Your task to perform on an android device: turn off picture-in-picture Image 0: 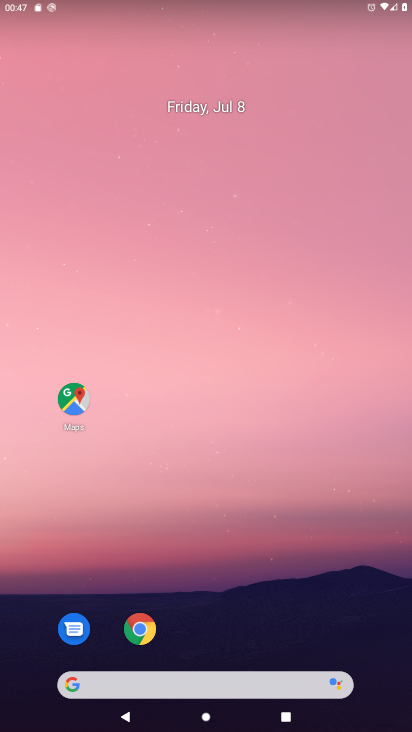
Step 0: click (135, 631)
Your task to perform on an android device: turn off picture-in-picture Image 1: 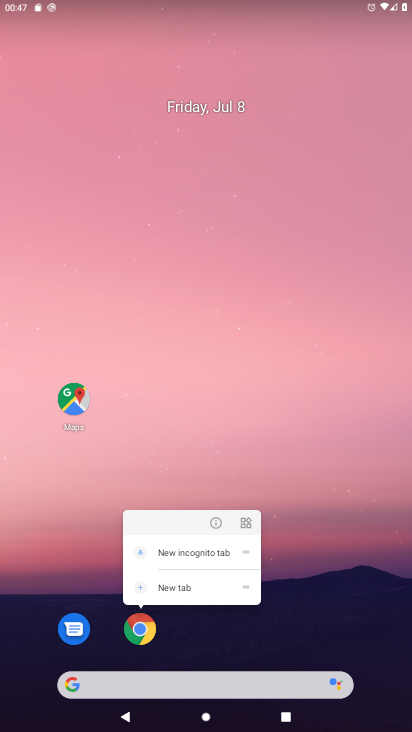
Step 1: click (214, 520)
Your task to perform on an android device: turn off picture-in-picture Image 2: 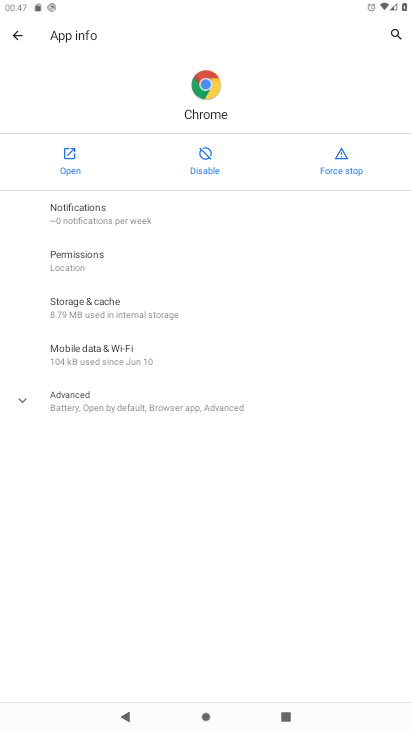
Step 2: click (119, 400)
Your task to perform on an android device: turn off picture-in-picture Image 3: 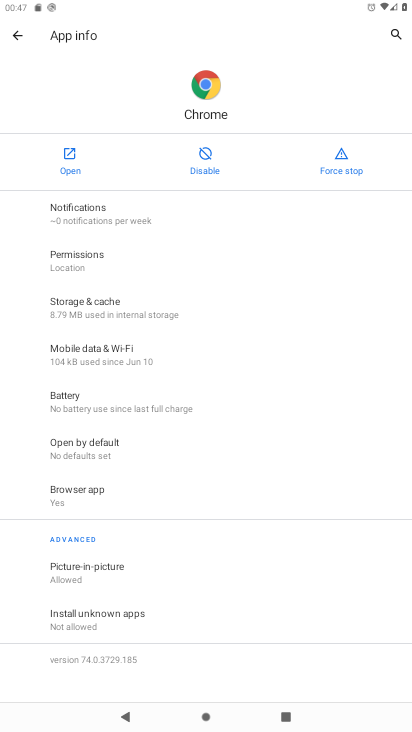
Step 3: click (74, 557)
Your task to perform on an android device: turn off picture-in-picture Image 4: 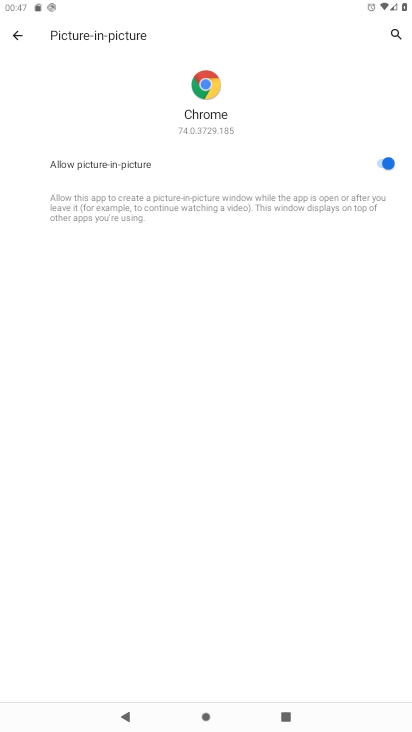
Step 4: click (380, 158)
Your task to perform on an android device: turn off picture-in-picture Image 5: 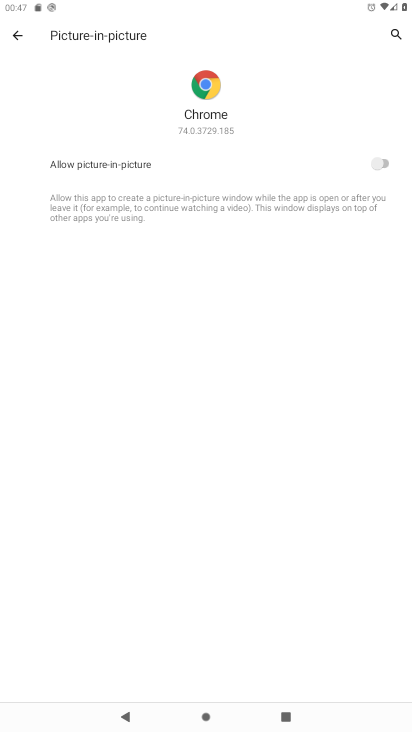
Step 5: task complete